Your task to perform on an android device: Show me recent news Image 0: 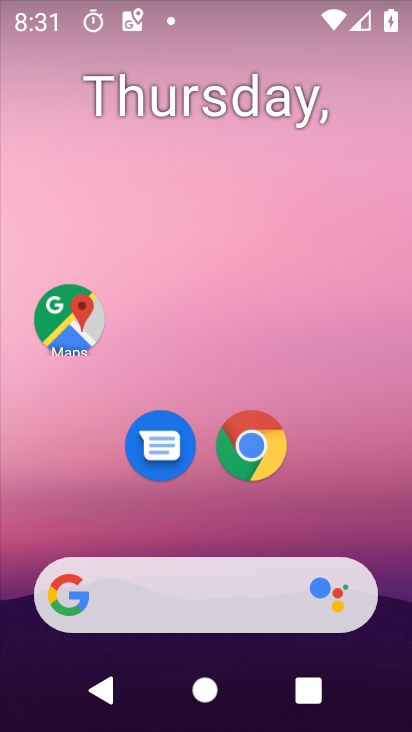
Step 0: click (206, 596)
Your task to perform on an android device: Show me recent news Image 1: 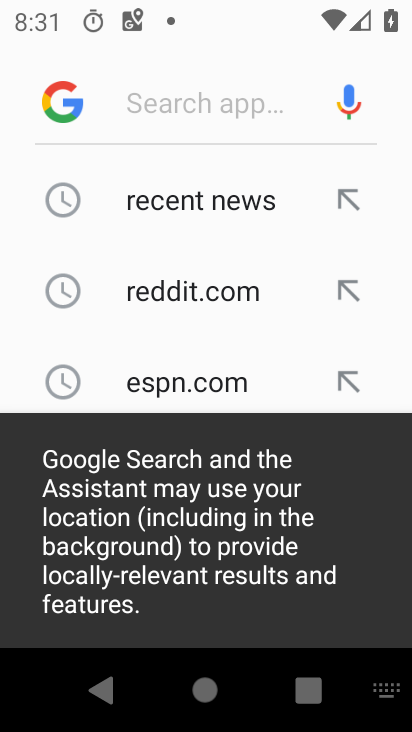
Step 1: click (217, 198)
Your task to perform on an android device: Show me recent news Image 2: 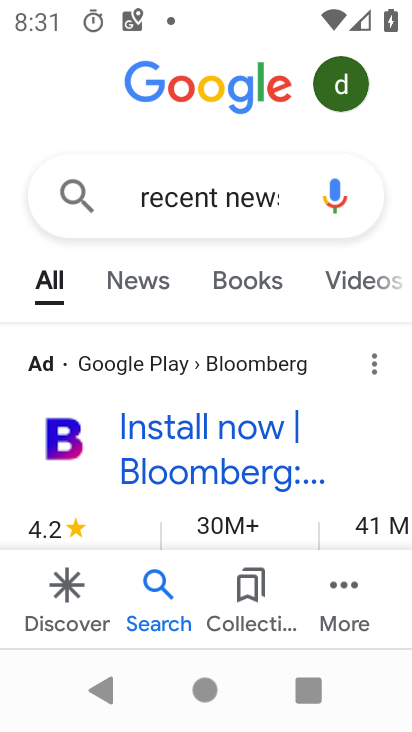
Step 2: task complete